Your task to perform on an android device: toggle wifi Image 0: 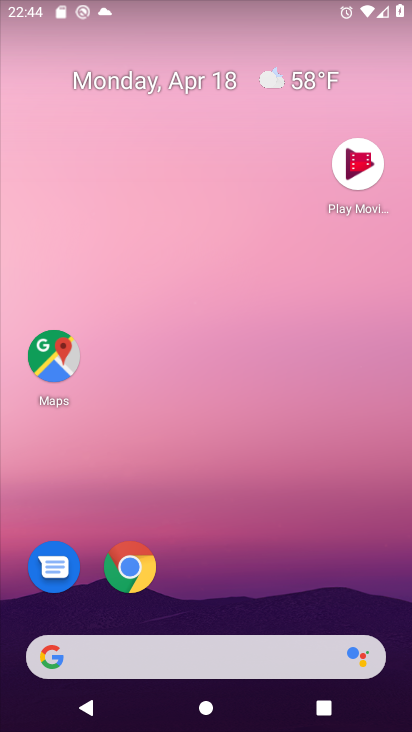
Step 0: drag from (185, 629) to (406, 20)
Your task to perform on an android device: toggle wifi Image 1: 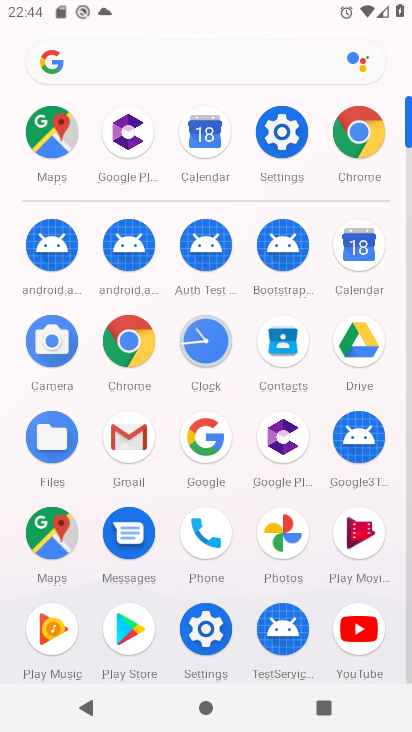
Step 1: click (194, 621)
Your task to perform on an android device: toggle wifi Image 2: 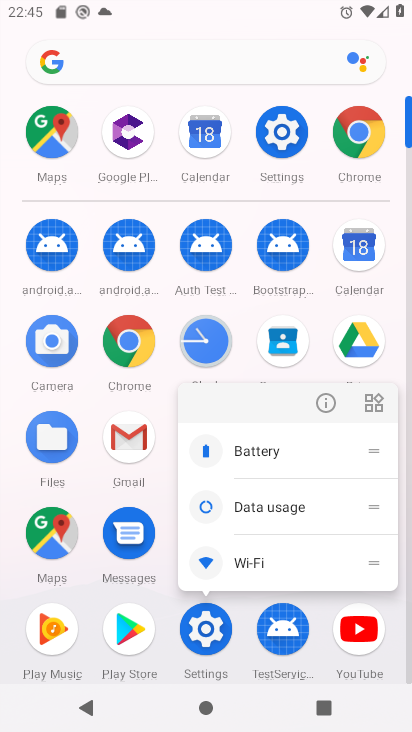
Step 2: click (330, 401)
Your task to perform on an android device: toggle wifi Image 3: 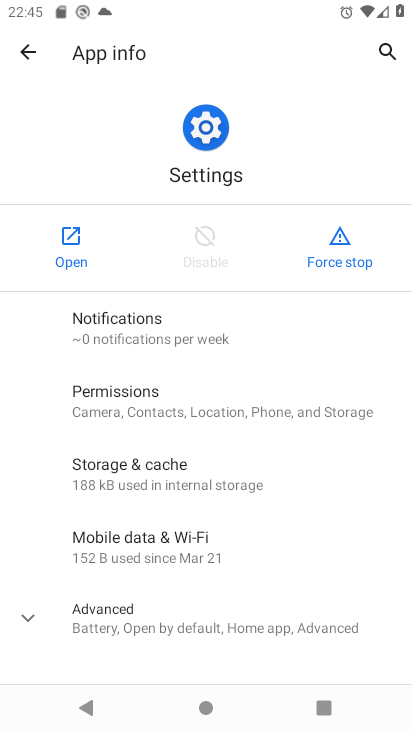
Step 3: drag from (194, 576) to (272, 172)
Your task to perform on an android device: toggle wifi Image 4: 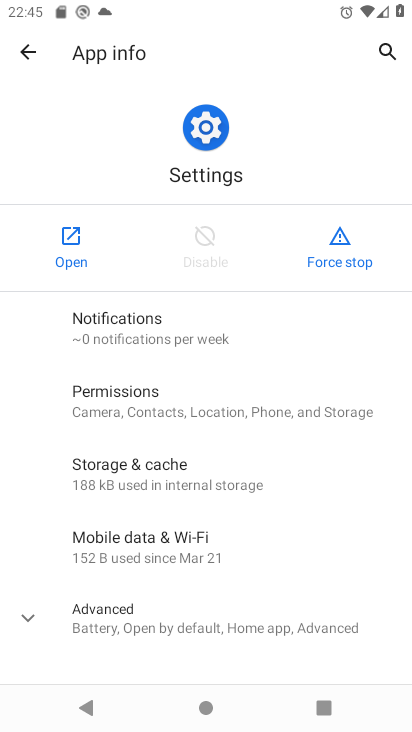
Step 4: click (73, 236)
Your task to perform on an android device: toggle wifi Image 5: 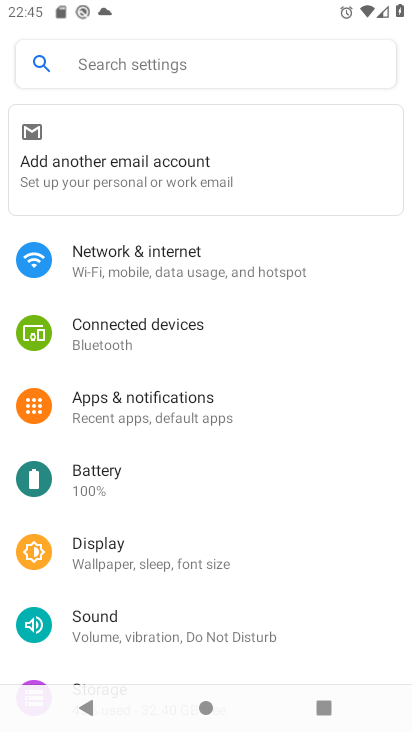
Step 5: click (198, 269)
Your task to perform on an android device: toggle wifi Image 6: 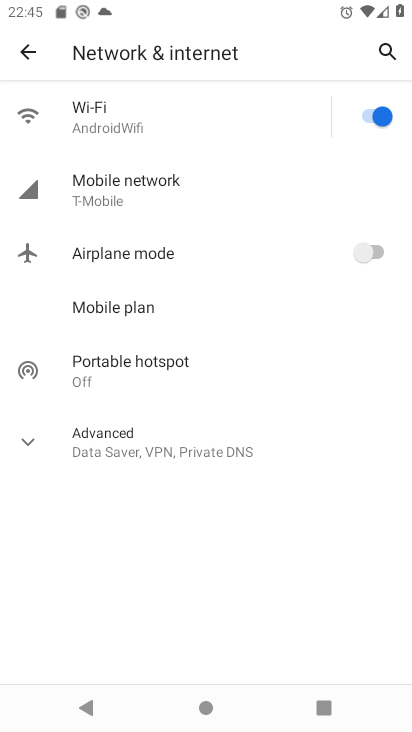
Step 6: click (230, 130)
Your task to perform on an android device: toggle wifi Image 7: 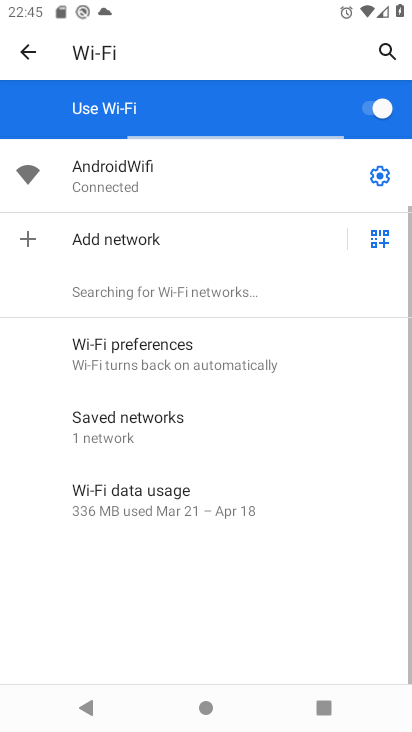
Step 7: click (372, 122)
Your task to perform on an android device: toggle wifi Image 8: 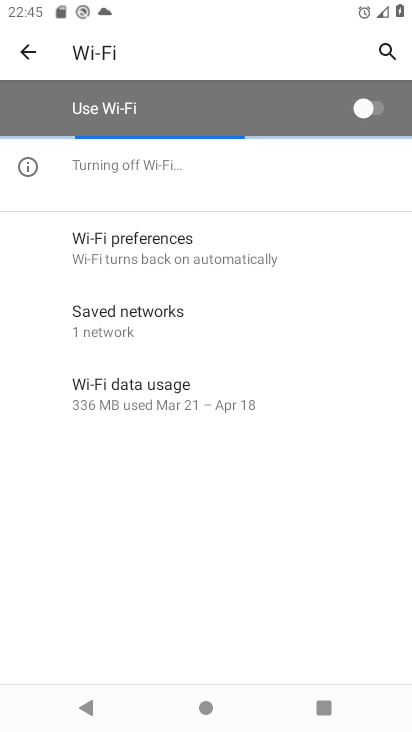
Step 8: task complete